Your task to perform on an android device: change keyboard looks Image 0: 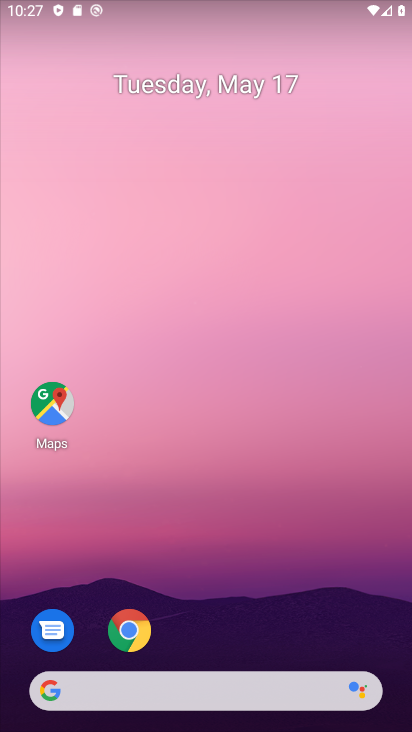
Step 0: drag from (247, 561) to (279, 125)
Your task to perform on an android device: change keyboard looks Image 1: 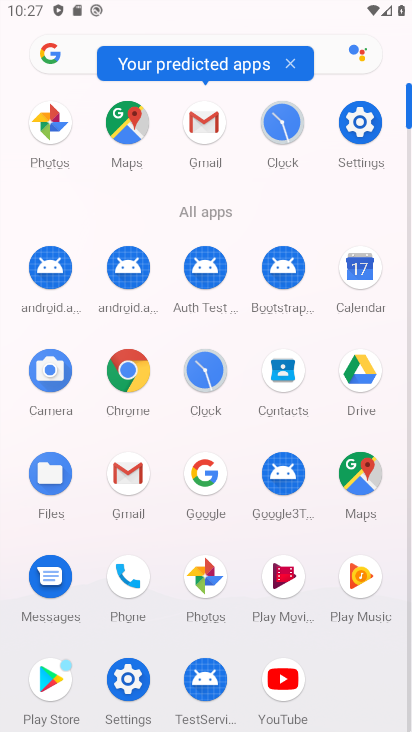
Step 1: click (350, 127)
Your task to perform on an android device: change keyboard looks Image 2: 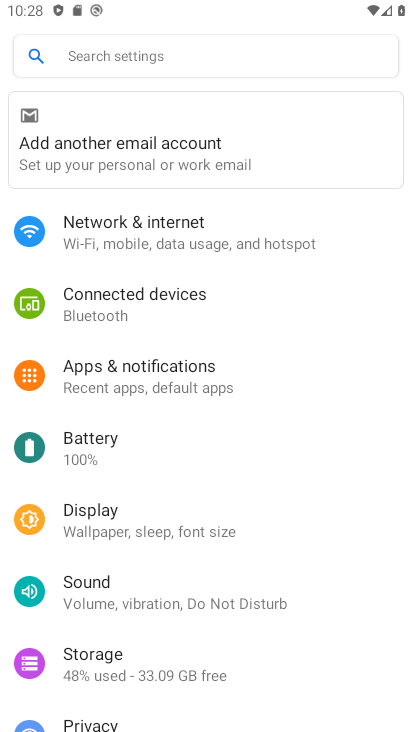
Step 2: drag from (168, 651) to (207, 109)
Your task to perform on an android device: change keyboard looks Image 3: 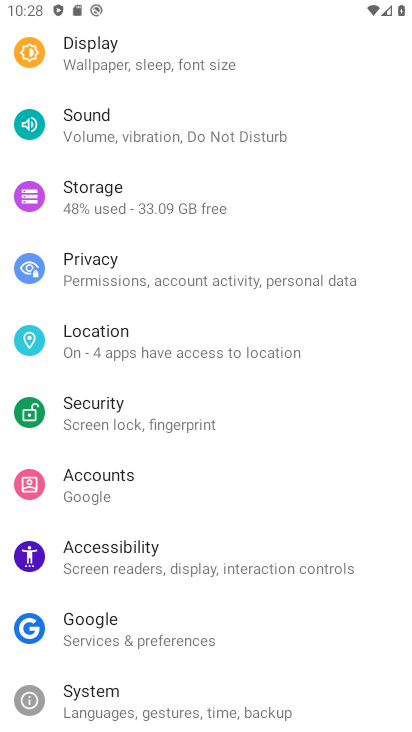
Step 3: drag from (219, 615) to (296, 47)
Your task to perform on an android device: change keyboard looks Image 4: 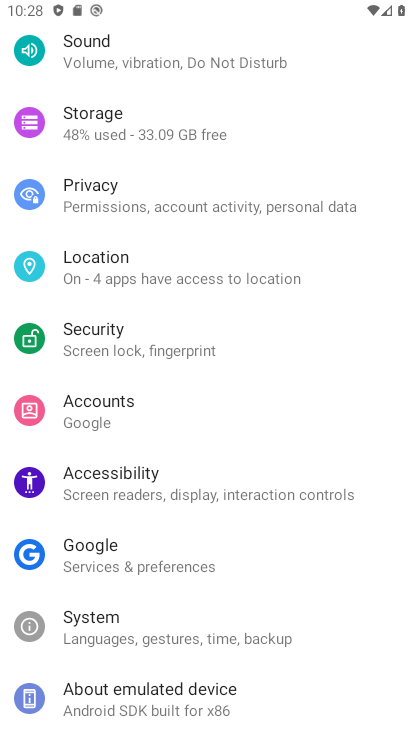
Step 4: click (151, 715)
Your task to perform on an android device: change keyboard looks Image 5: 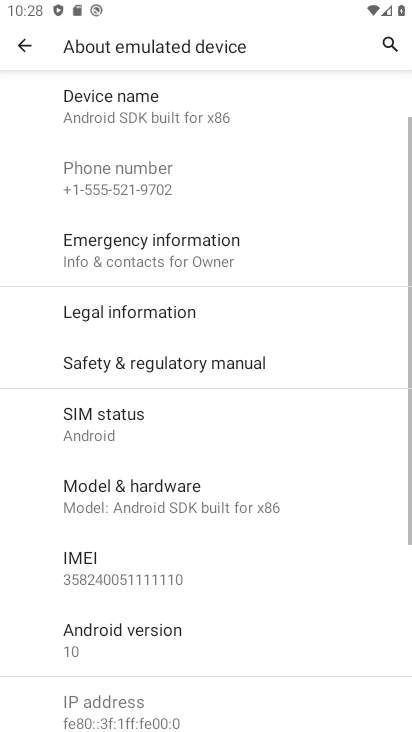
Step 5: click (17, 34)
Your task to perform on an android device: change keyboard looks Image 6: 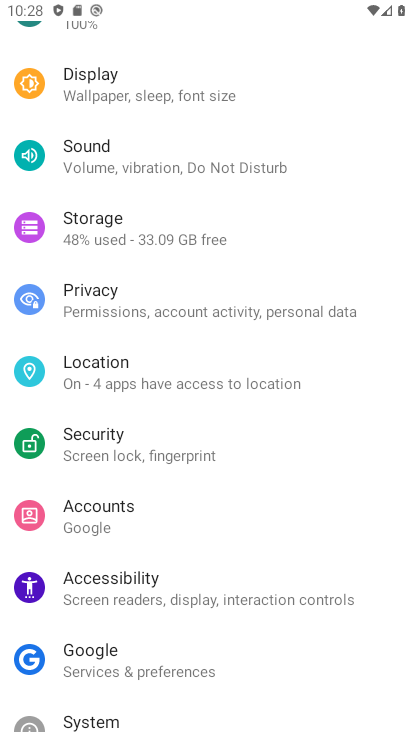
Step 6: drag from (171, 687) to (236, 186)
Your task to perform on an android device: change keyboard looks Image 7: 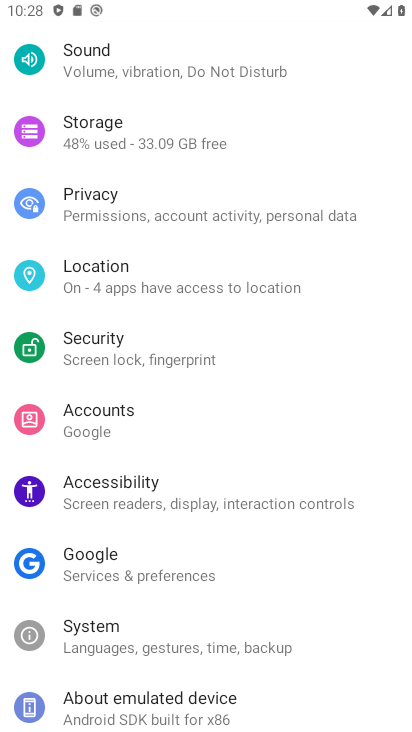
Step 7: click (142, 714)
Your task to perform on an android device: change keyboard looks Image 8: 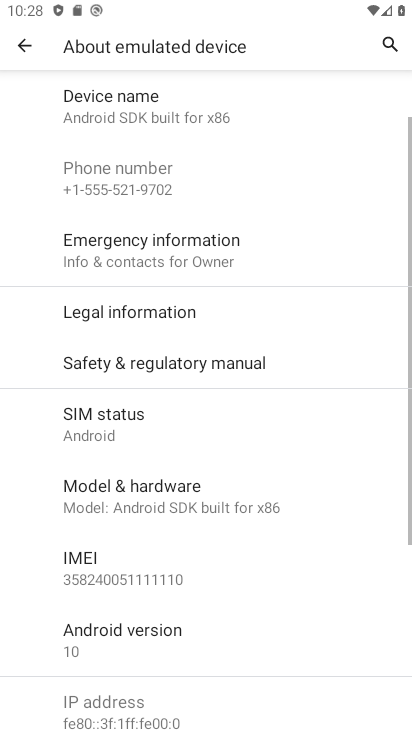
Step 8: click (21, 44)
Your task to perform on an android device: change keyboard looks Image 9: 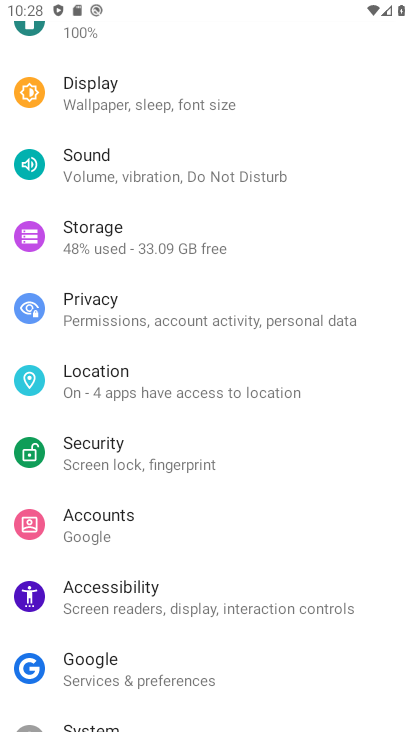
Step 9: drag from (143, 644) to (197, 0)
Your task to perform on an android device: change keyboard looks Image 10: 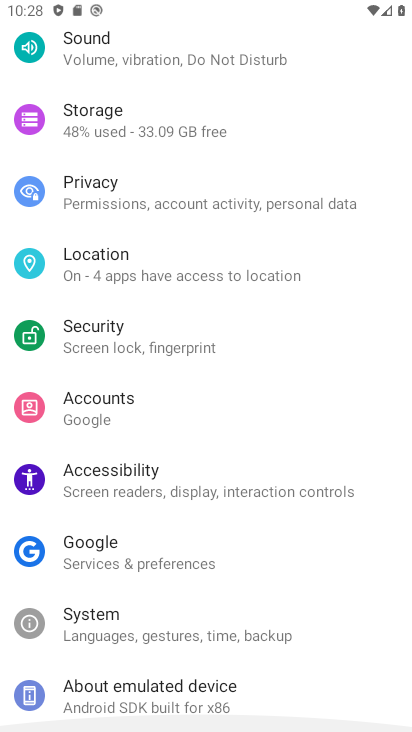
Step 10: click (139, 641)
Your task to perform on an android device: change keyboard looks Image 11: 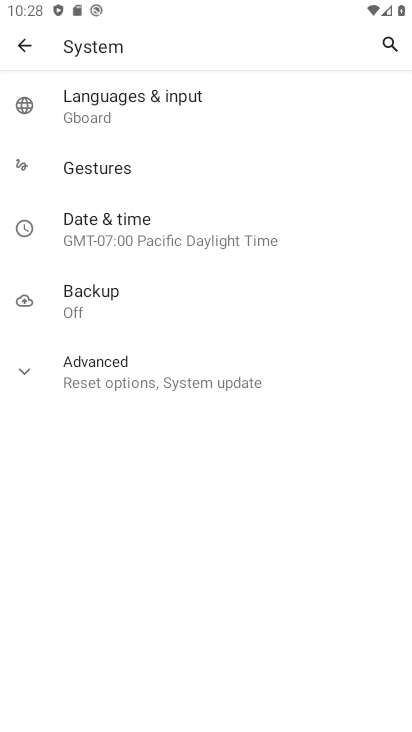
Step 11: click (105, 108)
Your task to perform on an android device: change keyboard looks Image 12: 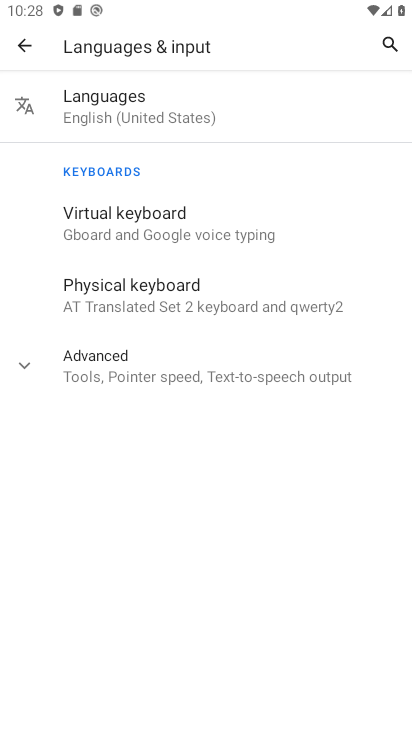
Step 12: click (117, 222)
Your task to perform on an android device: change keyboard looks Image 13: 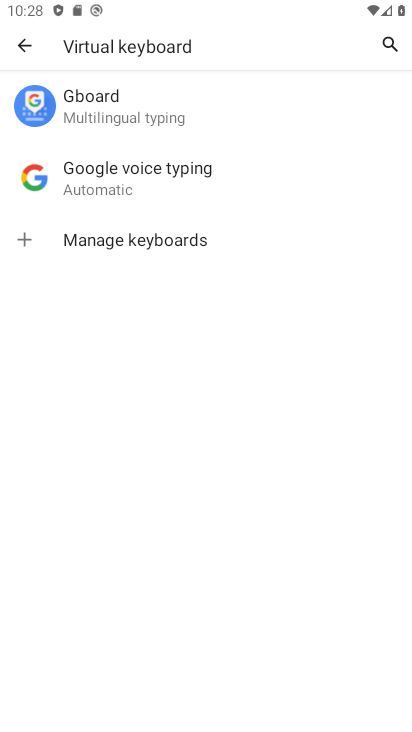
Step 13: click (98, 113)
Your task to perform on an android device: change keyboard looks Image 14: 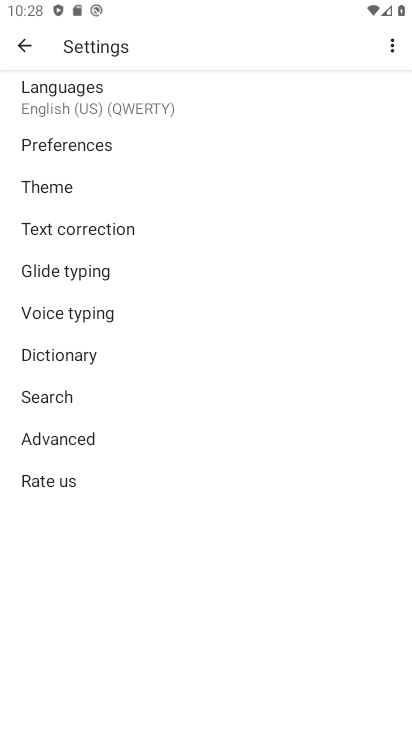
Step 14: click (49, 190)
Your task to perform on an android device: change keyboard looks Image 15: 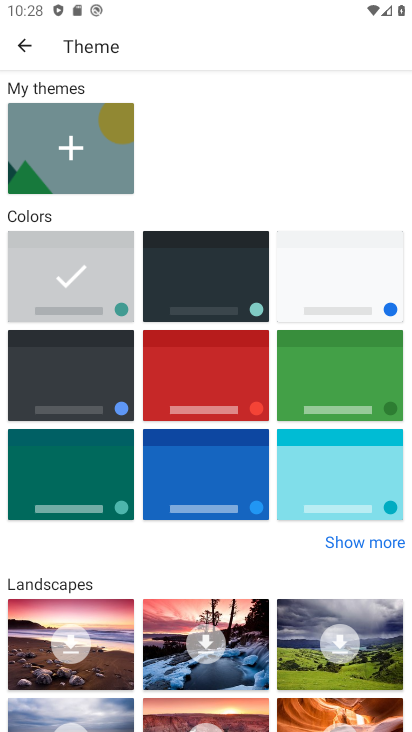
Step 15: click (337, 385)
Your task to perform on an android device: change keyboard looks Image 16: 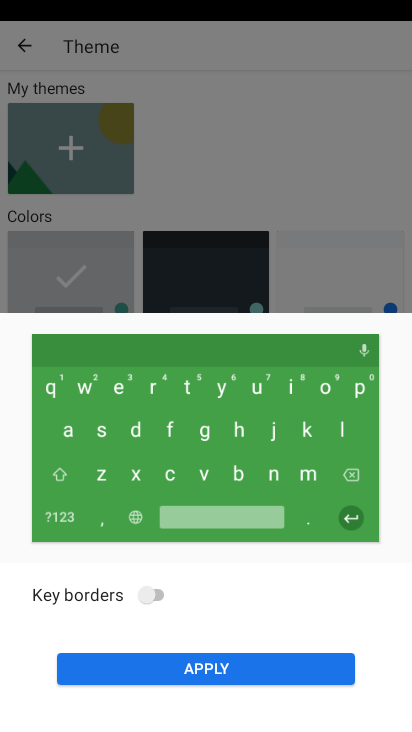
Step 16: click (241, 661)
Your task to perform on an android device: change keyboard looks Image 17: 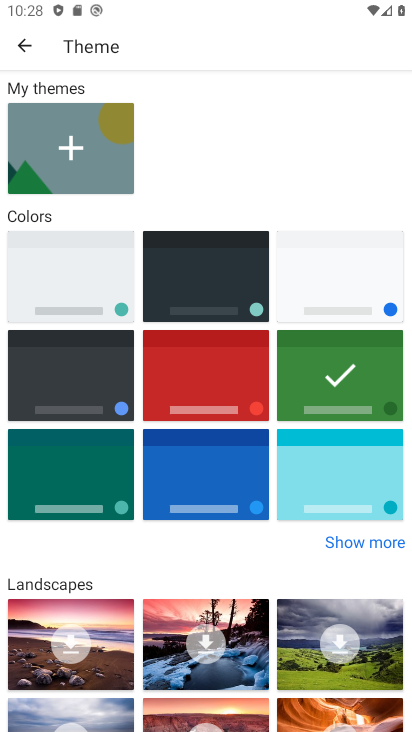
Step 17: task complete